Your task to perform on an android device: Open CNN.com Image 0: 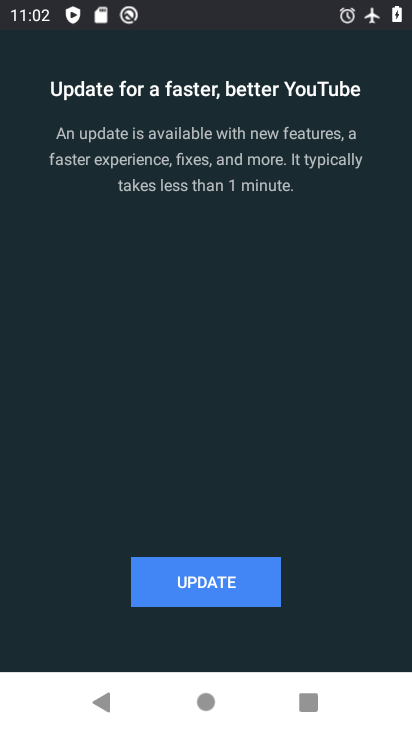
Step 0: press home button
Your task to perform on an android device: Open CNN.com Image 1: 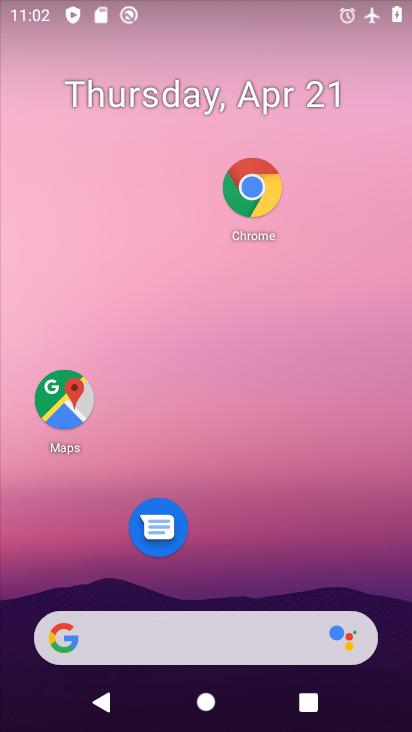
Step 1: drag from (239, 587) to (285, 197)
Your task to perform on an android device: Open CNN.com Image 2: 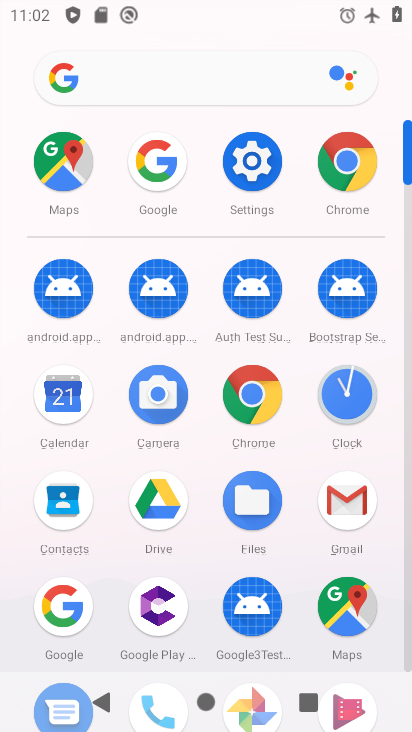
Step 2: click (360, 187)
Your task to perform on an android device: Open CNN.com Image 3: 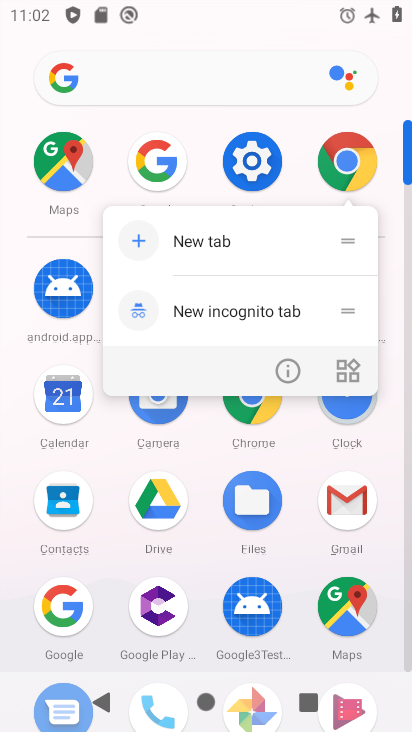
Step 3: click (360, 187)
Your task to perform on an android device: Open CNN.com Image 4: 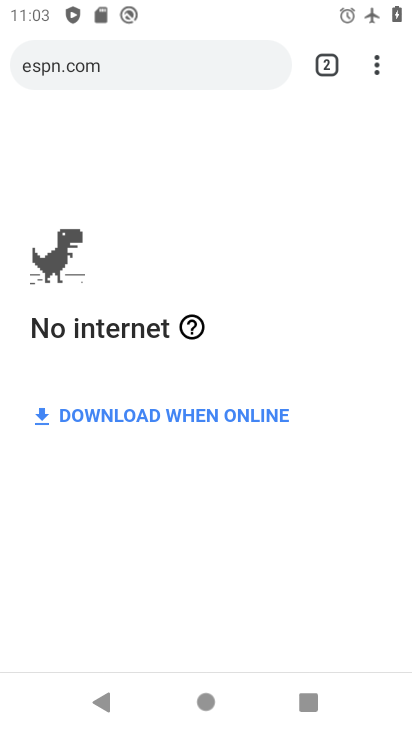
Step 4: click (203, 60)
Your task to perform on an android device: Open CNN.com Image 5: 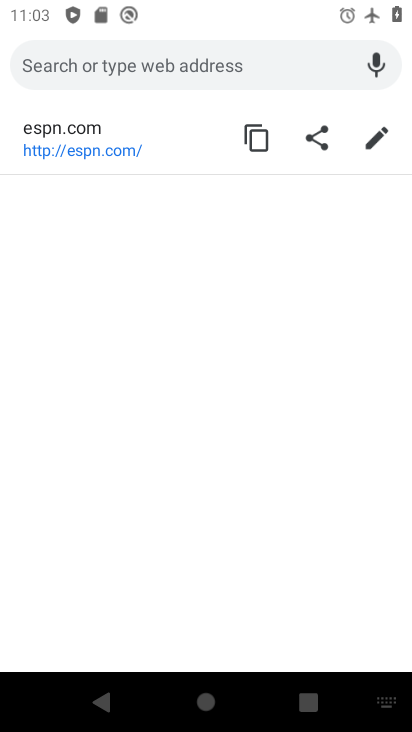
Step 5: type "cnn.com"
Your task to perform on an android device: Open CNN.com Image 6: 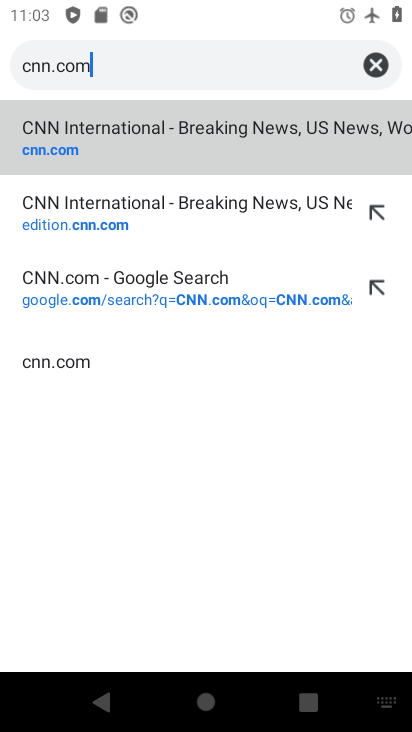
Step 6: click (307, 134)
Your task to perform on an android device: Open CNN.com Image 7: 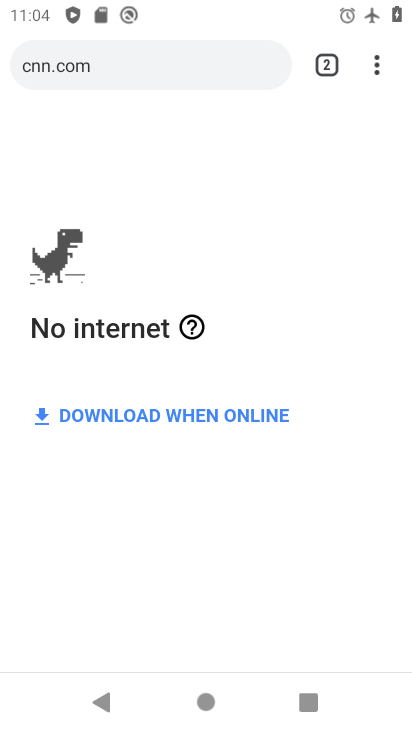
Step 7: task complete